Your task to perform on an android device: allow notifications from all sites in the chrome app Image 0: 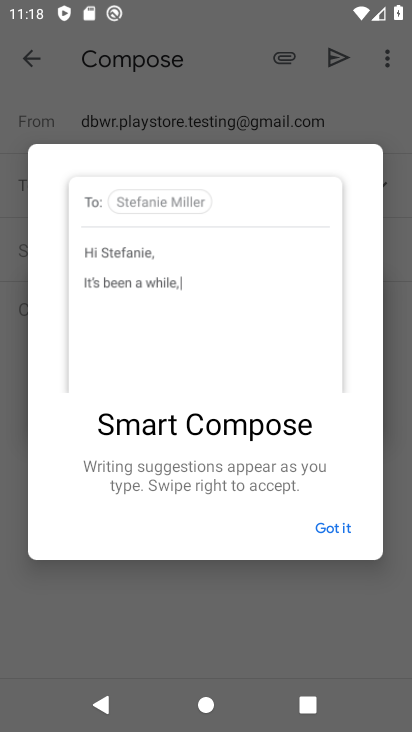
Step 0: press home button
Your task to perform on an android device: allow notifications from all sites in the chrome app Image 1: 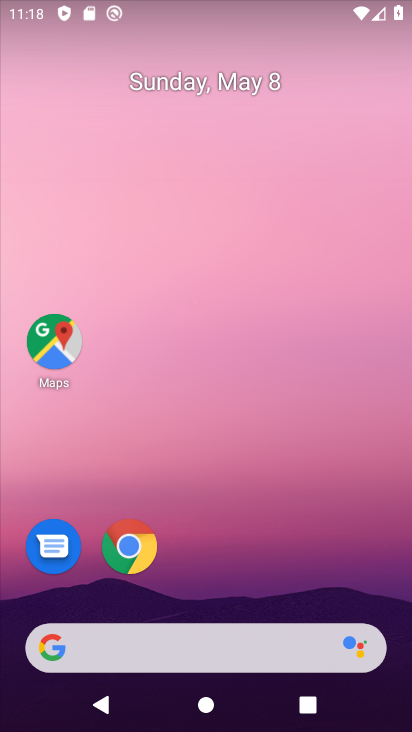
Step 1: click (131, 555)
Your task to perform on an android device: allow notifications from all sites in the chrome app Image 2: 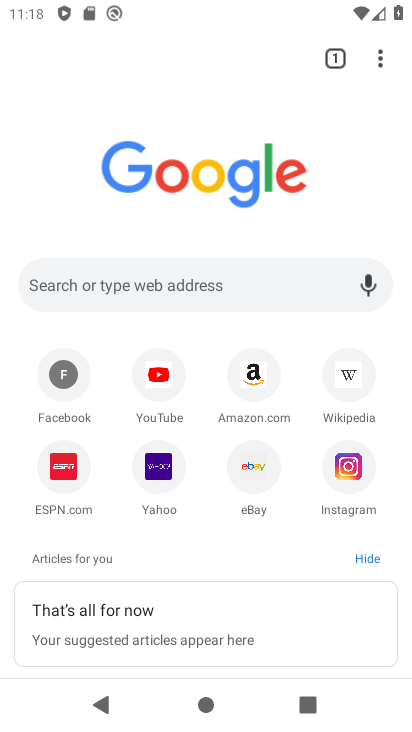
Step 2: drag from (382, 64) to (266, 483)
Your task to perform on an android device: allow notifications from all sites in the chrome app Image 3: 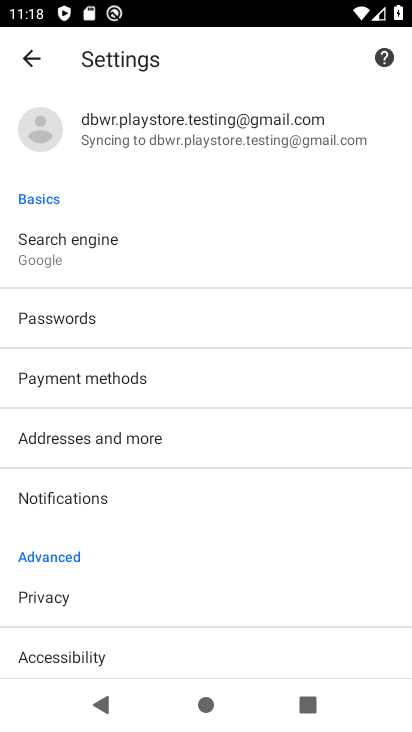
Step 3: drag from (67, 623) to (105, 197)
Your task to perform on an android device: allow notifications from all sites in the chrome app Image 4: 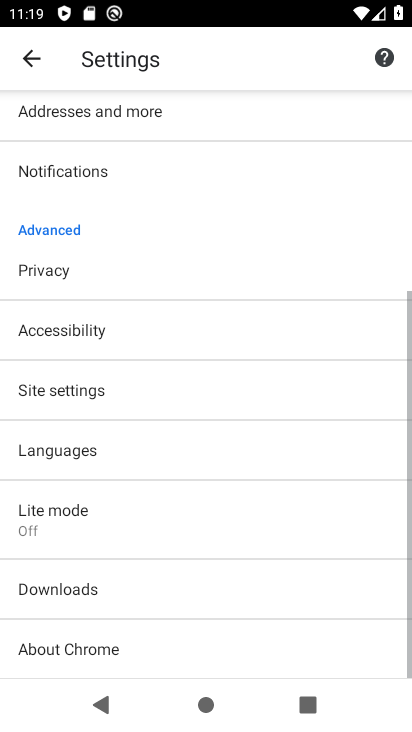
Step 4: click (95, 392)
Your task to perform on an android device: allow notifications from all sites in the chrome app Image 5: 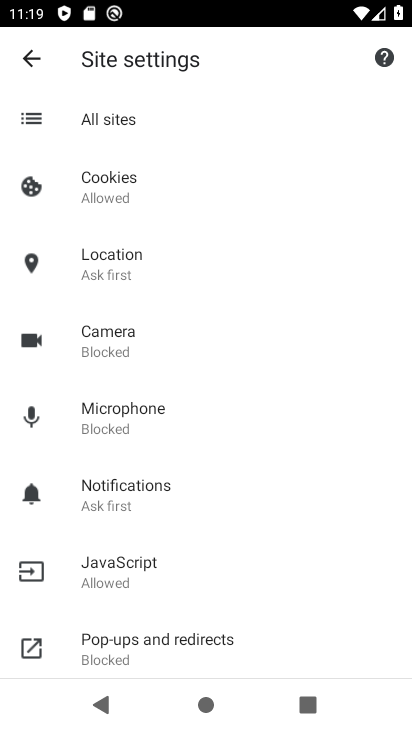
Step 5: click (178, 497)
Your task to perform on an android device: allow notifications from all sites in the chrome app Image 6: 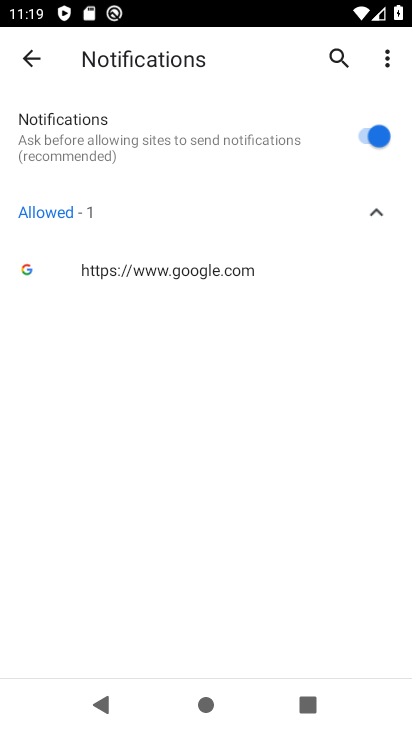
Step 6: task complete